Your task to perform on an android device: Open the map Image 0: 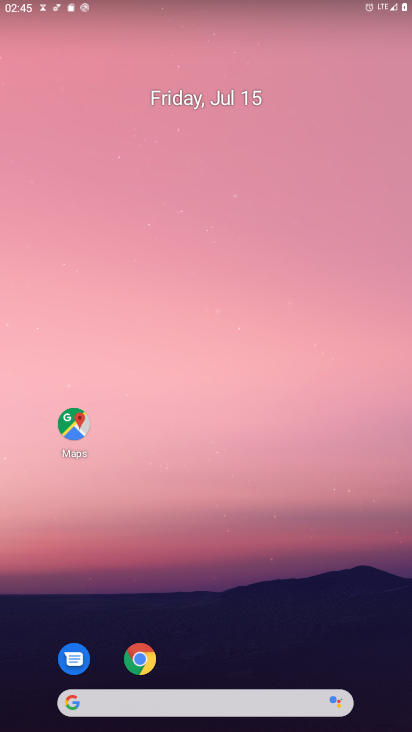
Step 0: drag from (226, 712) to (235, 492)
Your task to perform on an android device: Open the map Image 1: 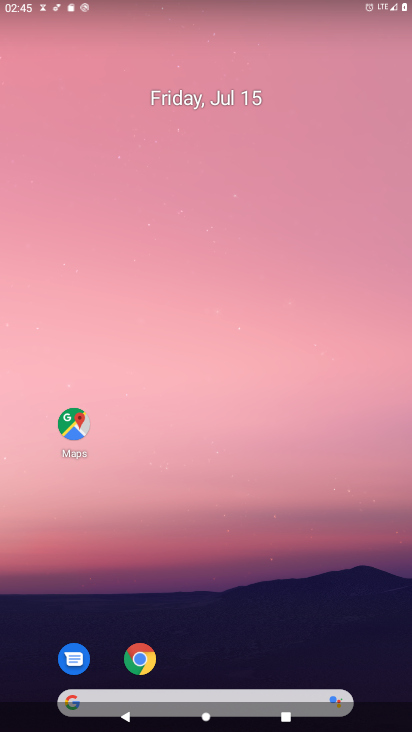
Step 1: click (61, 426)
Your task to perform on an android device: Open the map Image 2: 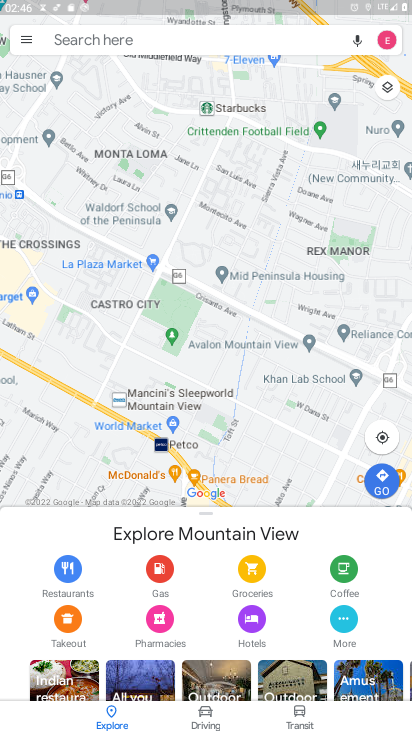
Step 2: task complete